Your task to perform on an android device: toggle notifications settings in the gmail app Image 0: 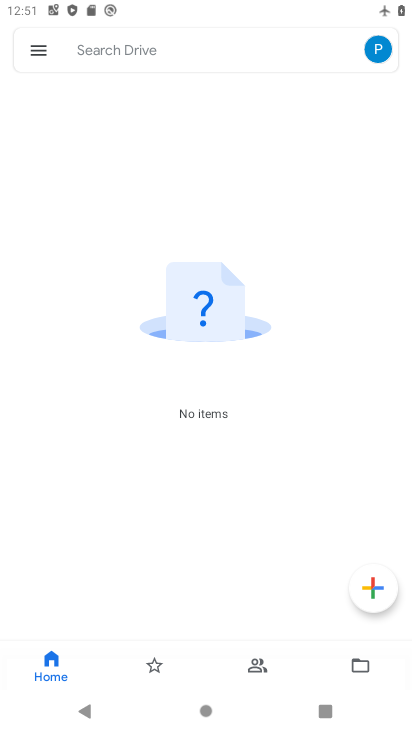
Step 0: press home button
Your task to perform on an android device: toggle notifications settings in the gmail app Image 1: 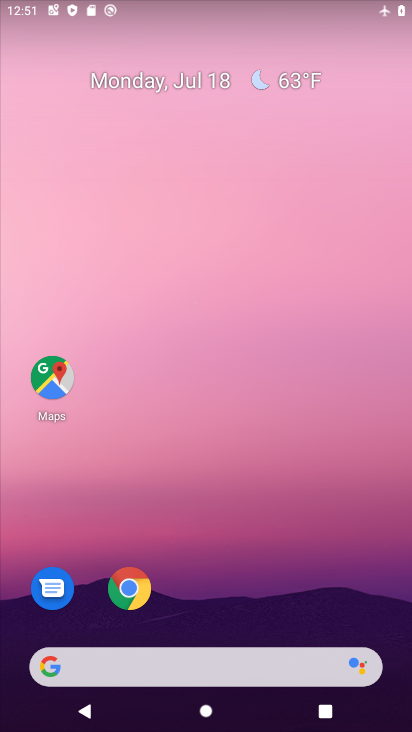
Step 1: drag from (266, 722) to (238, 126)
Your task to perform on an android device: toggle notifications settings in the gmail app Image 2: 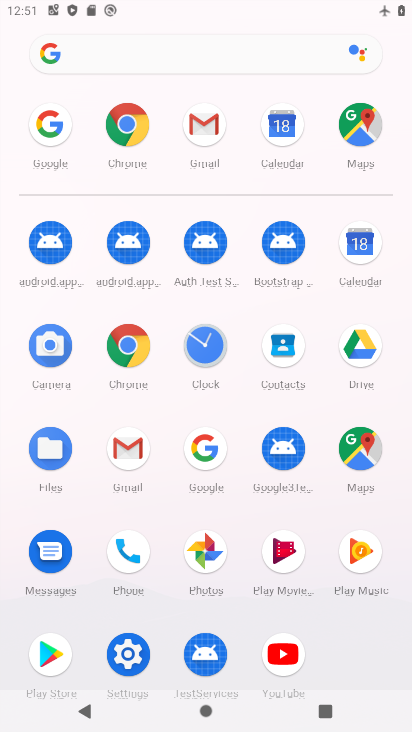
Step 2: click (126, 451)
Your task to perform on an android device: toggle notifications settings in the gmail app Image 3: 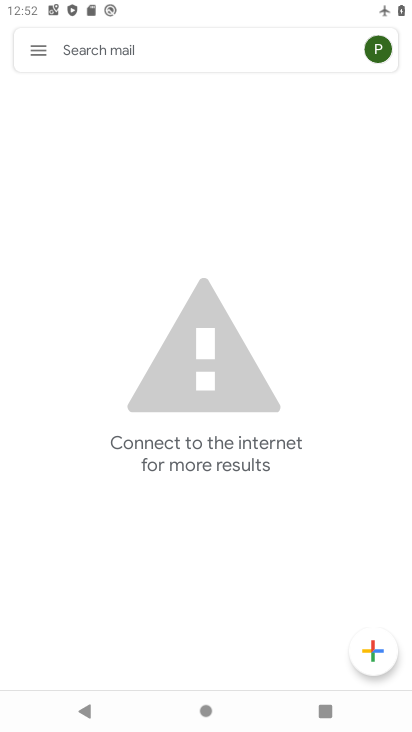
Step 3: click (40, 52)
Your task to perform on an android device: toggle notifications settings in the gmail app Image 4: 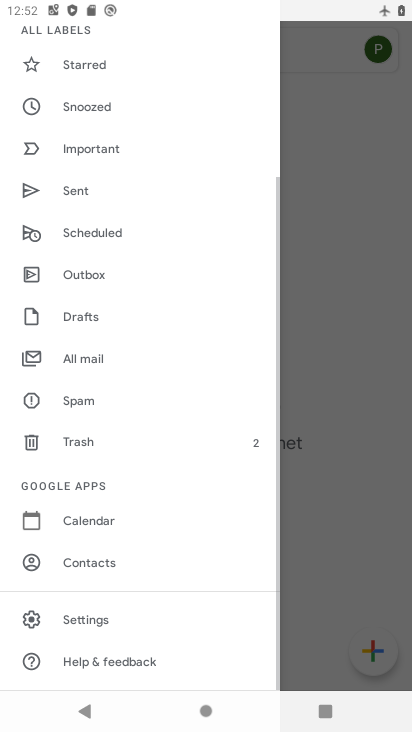
Step 4: click (92, 616)
Your task to perform on an android device: toggle notifications settings in the gmail app Image 5: 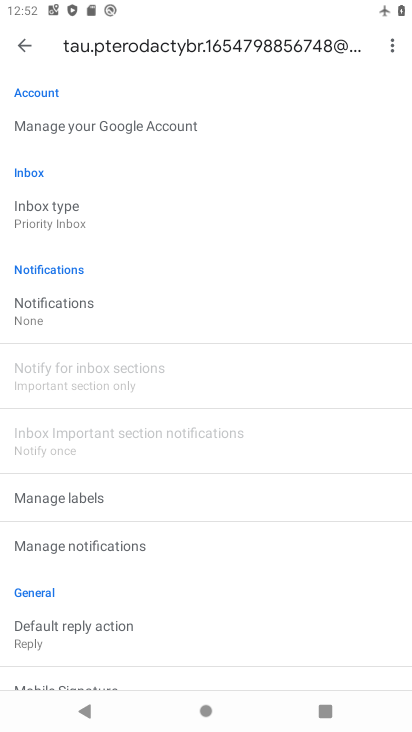
Step 5: click (48, 306)
Your task to perform on an android device: toggle notifications settings in the gmail app Image 6: 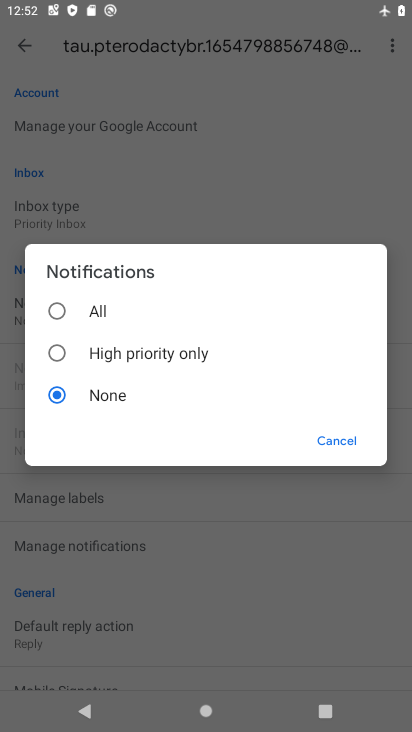
Step 6: click (59, 320)
Your task to perform on an android device: toggle notifications settings in the gmail app Image 7: 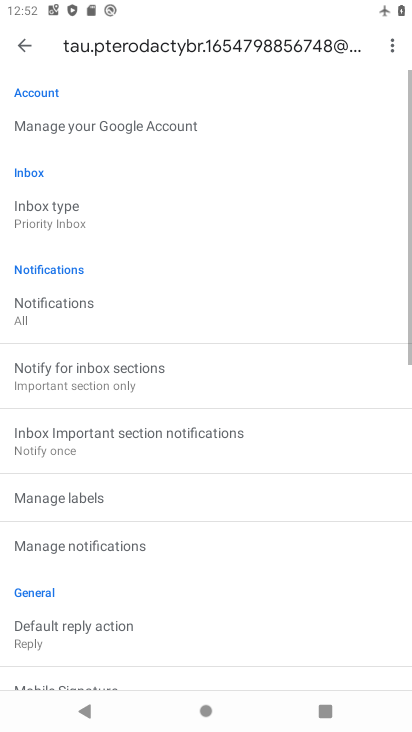
Step 7: task complete